Your task to perform on an android device: toggle javascript in the chrome app Image 0: 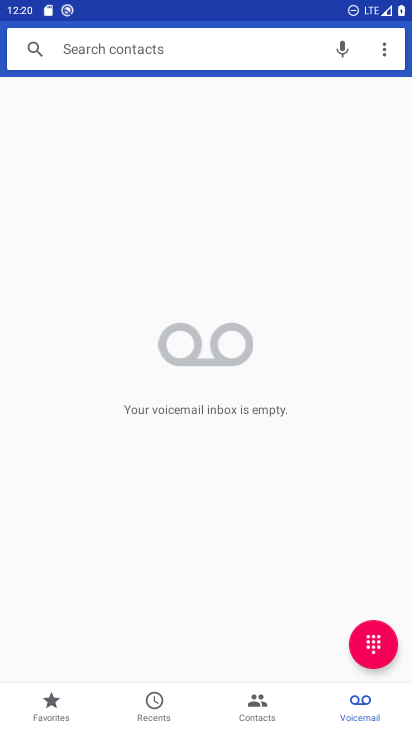
Step 0: press home button
Your task to perform on an android device: toggle javascript in the chrome app Image 1: 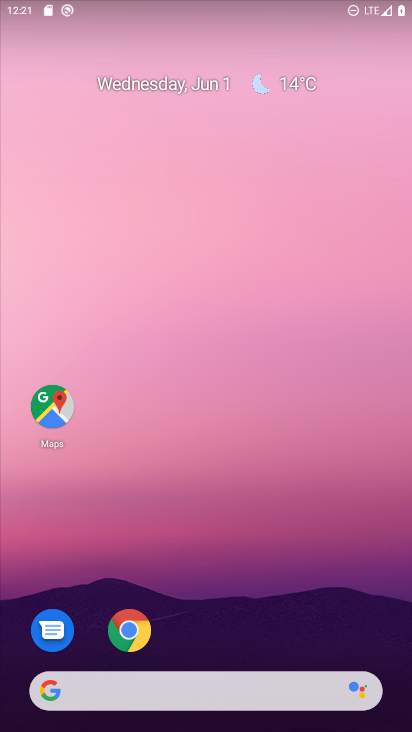
Step 1: drag from (232, 519) to (241, 213)
Your task to perform on an android device: toggle javascript in the chrome app Image 2: 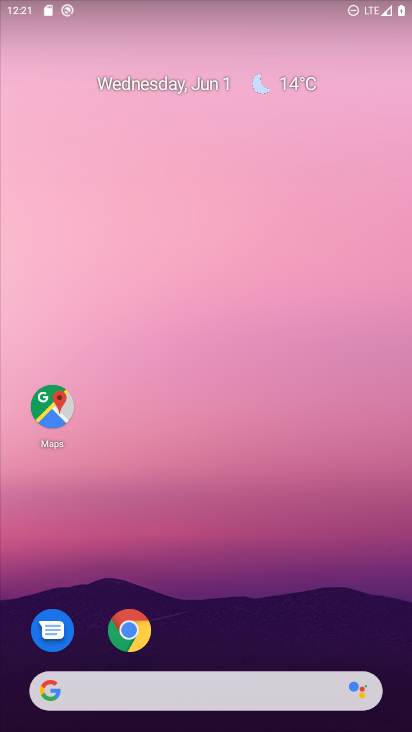
Step 2: click (139, 630)
Your task to perform on an android device: toggle javascript in the chrome app Image 3: 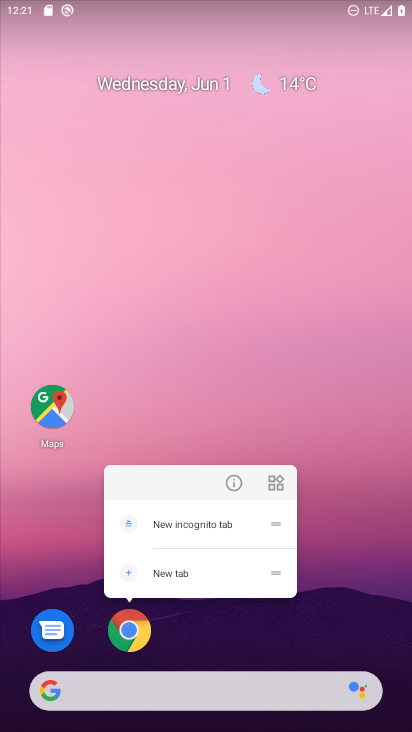
Step 3: click (128, 632)
Your task to perform on an android device: toggle javascript in the chrome app Image 4: 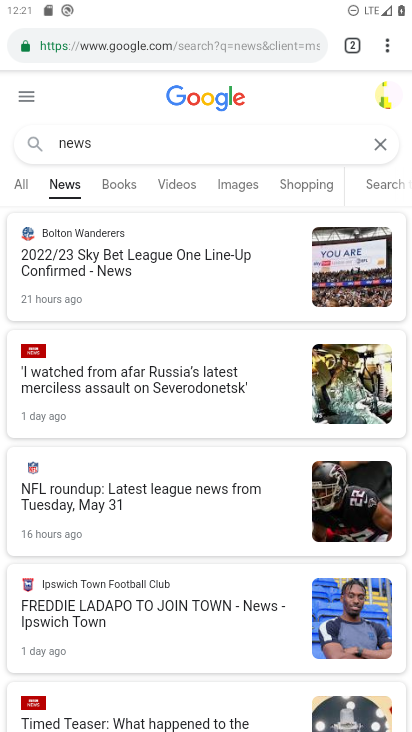
Step 4: click (386, 45)
Your task to perform on an android device: toggle javascript in the chrome app Image 5: 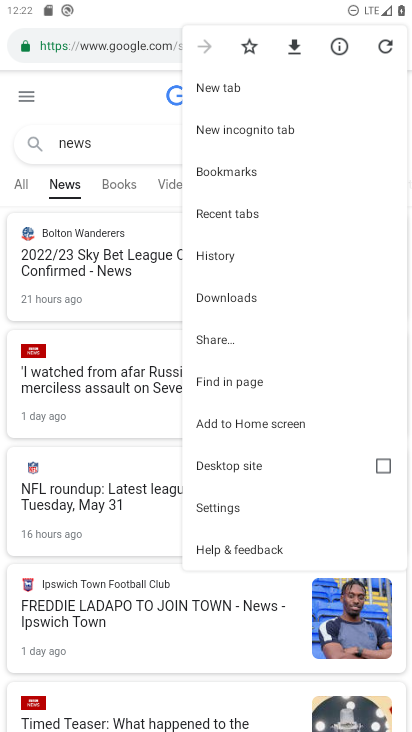
Step 5: click (228, 508)
Your task to perform on an android device: toggle javascript in the chrome app Image 6: 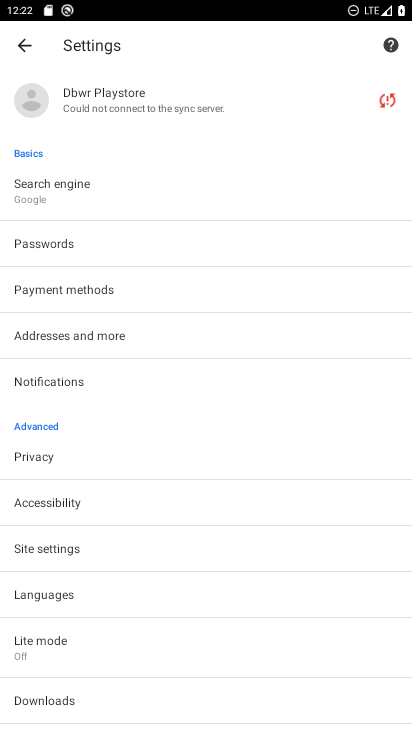
Step 6: click (71, 551)
Your task to perform on an android device: toggle javascript in the chrome app Image 7: 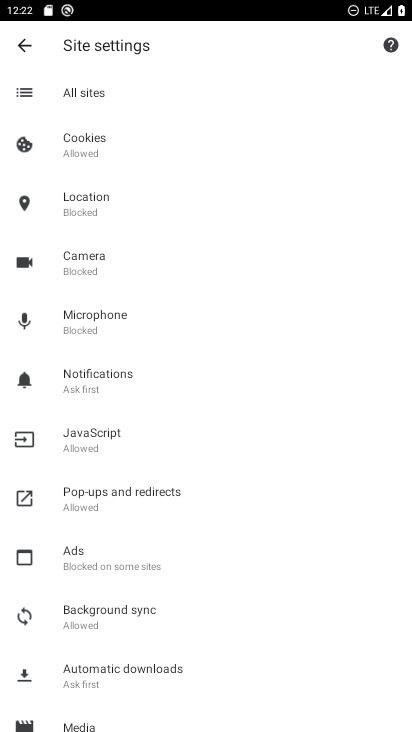
Step 7: click (94, 446)
Your task to perform on an android device: toggle javascript in the chrome app Image 8: 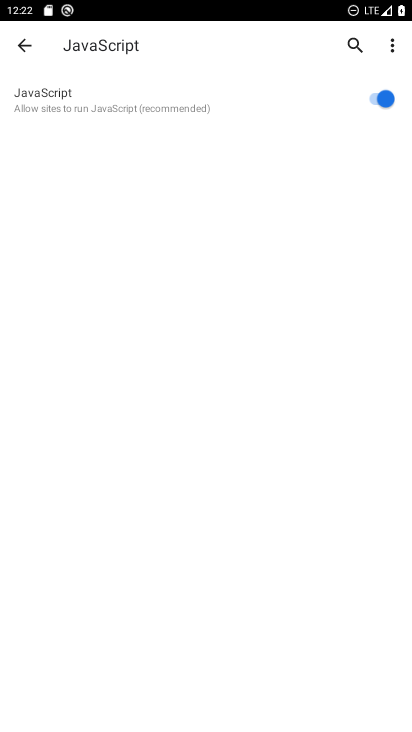
Step 8: click (358, 106)
Your task to perform on an android device: toggle javascript in the chrome app Image 9: 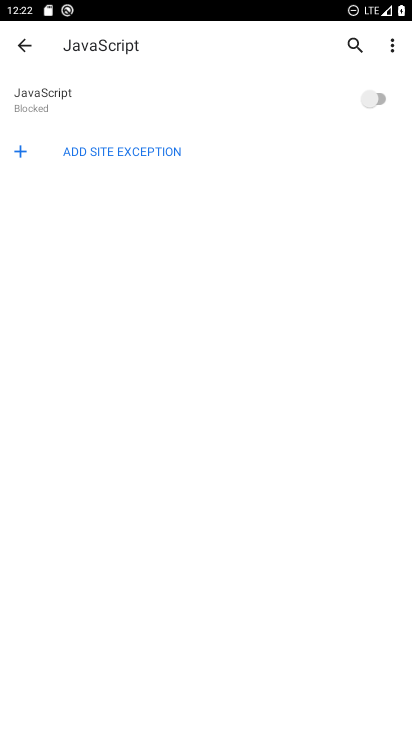
Step 9: task complete